Your task to perform on an android device: delete the emails in spam in the gmail app Image 0: 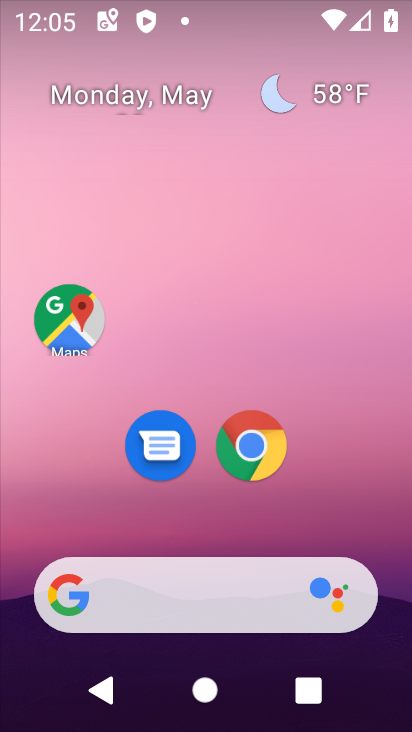
Step 0: drag from (221, 484) to (228, 12)
Your task to perform on an android device: delete the emails in spam in the gmail app Image 1: 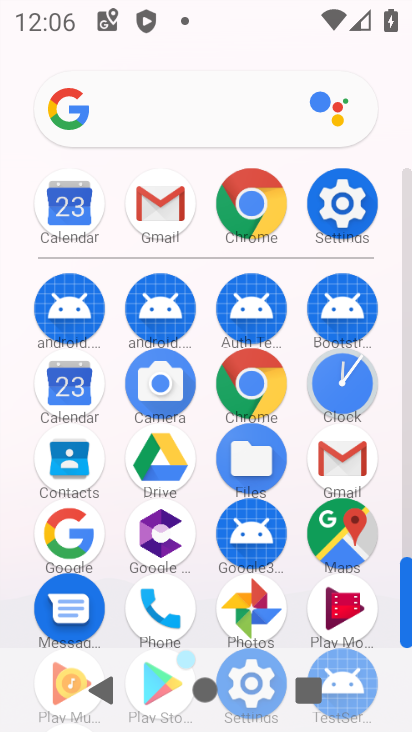
Step 1: click (338, 451)
Your task to perform on an android device: delete the emails in spam in the gmail app Image 2: 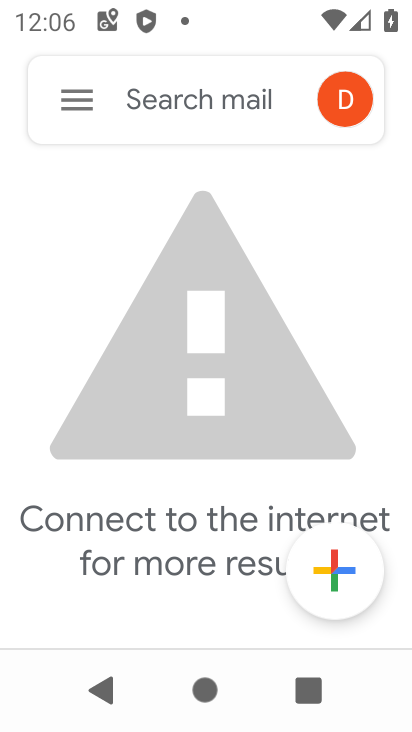
Step 2: task complete